Your task to perform on an android device: What's the weather today? Image 0: 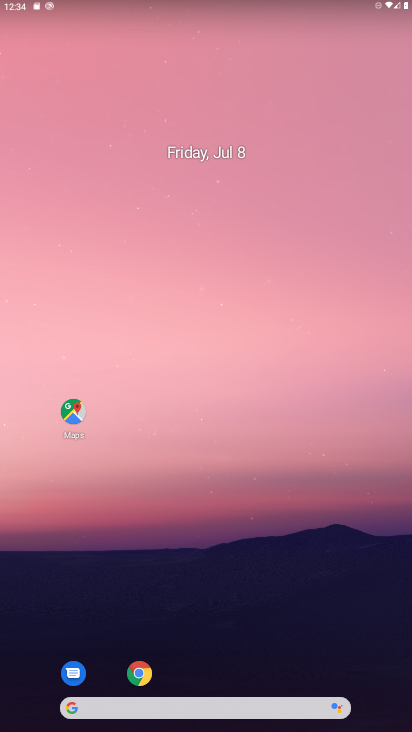
Step 0: drag from (2, 215) to (381, 258)
Your task to perform on an android device: What's the weather today? Image 1: 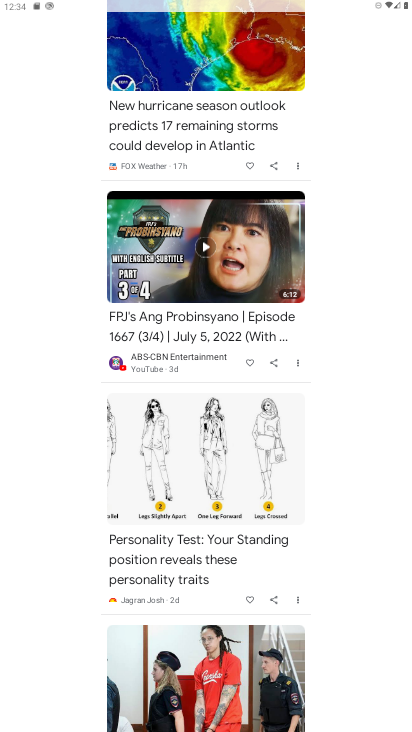
Step 1: task complete